Your task to perform on an android device: Is it going to rain today? Image 0: 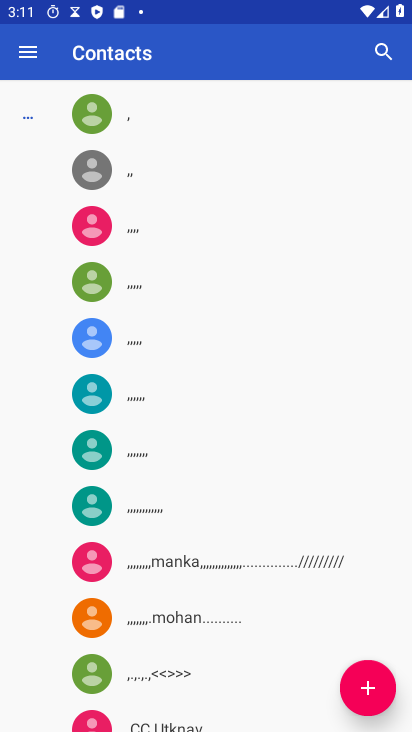
Step 0: press home button
Your task to perform on an android device: Is it going to rain today? Image 1: 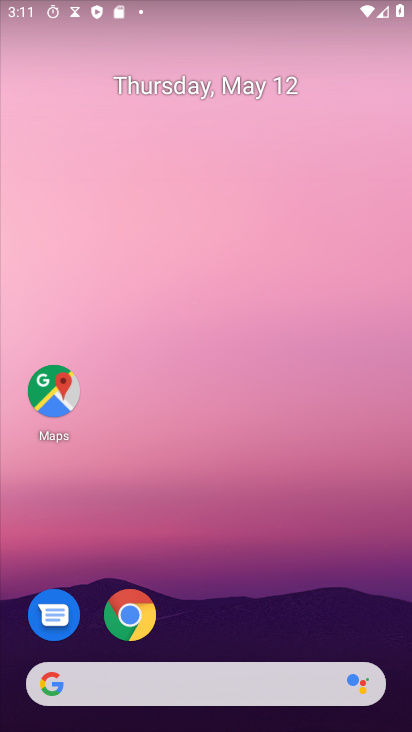
Step 1: click (140, 691)
Your task to perform on an android device: Is it going to rain today? Image 2: 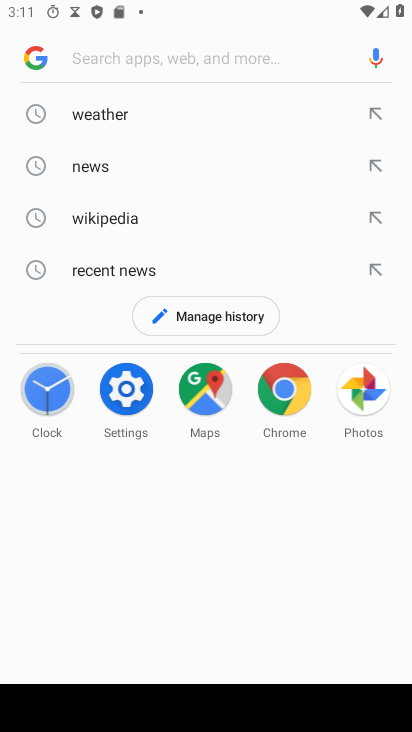
Step 2: click (118, 118)
Your task to perform on an android device: Is it going to rain today? Image 3: 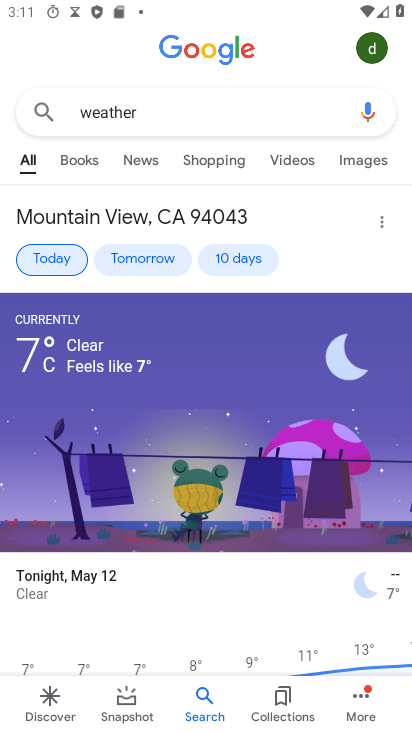
Step 3: click (48, 261)
Your task to perform on an android device: Is it going to rain today? Image 4: 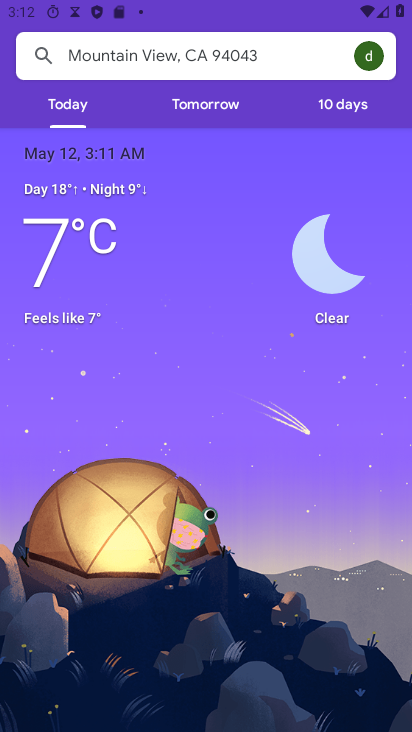
Step 4: task complete